Your task to perform on an android device: turn on data saver in the chrome app Image 0: 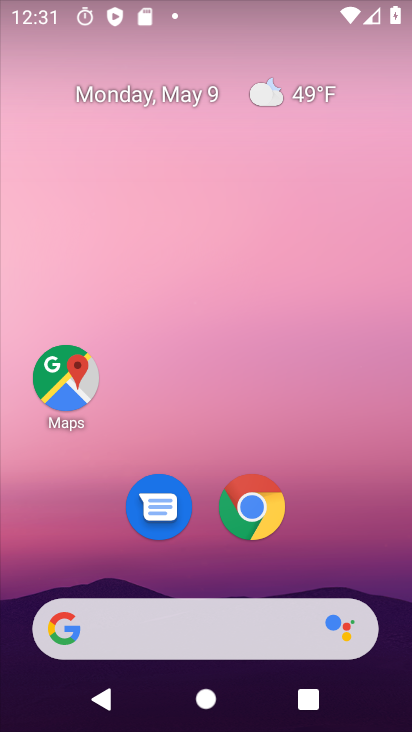
Step 0: click (251, 512)
Your task to perform on an android device: turn on data saver in the chrome app Image 1: 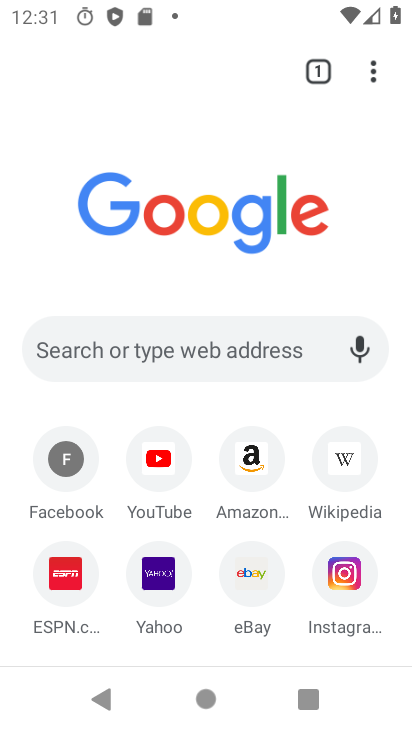
Step 1: click (374, 78)
Your task to perform on an android device: turn on data saver in the chrome app Image 2: 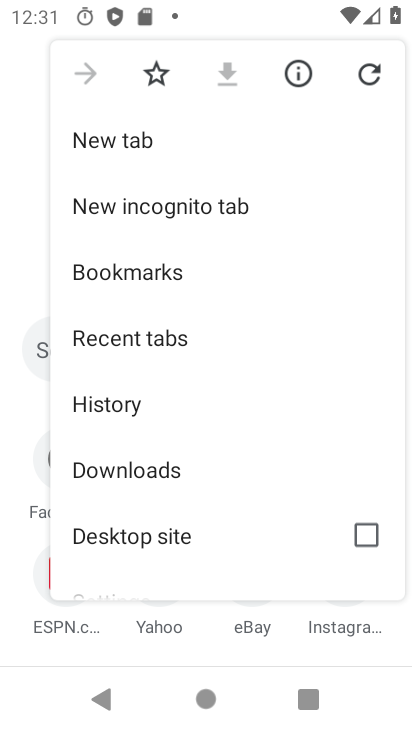
Step 2: drag from (135, 518) to (136, 275)
Your task to perform on an android device: turn on data saver in the chrome app Image 3: 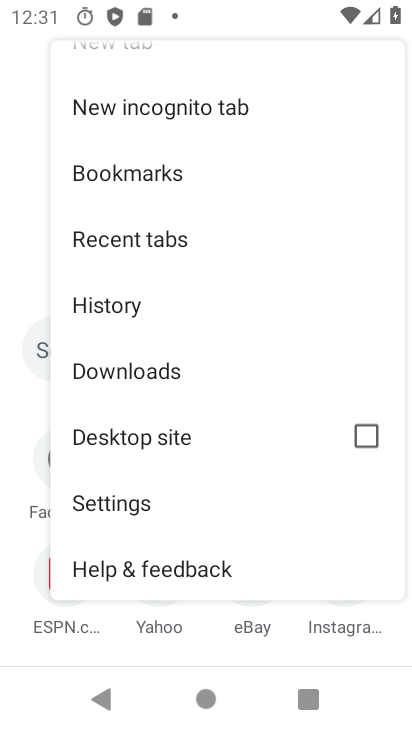
Step 3: click (124, 500)
Your task to perform on an android device: turn on data saver in the chrome app Image 4: 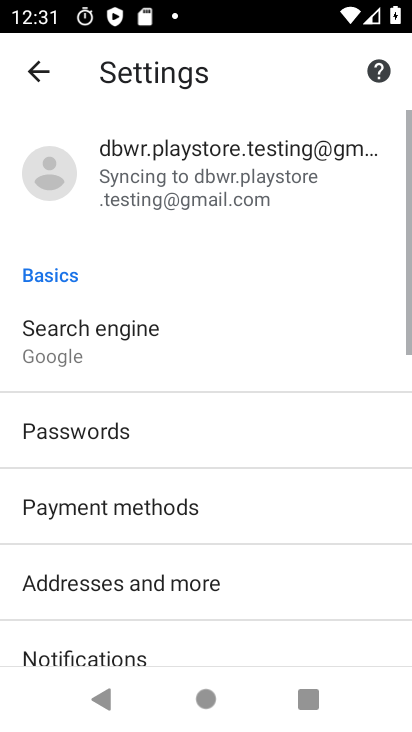
Step 4: drag from (169, 615) to (180, 297)
Your task to perform on an android device: turn on data saver in the chrome app Image 5: 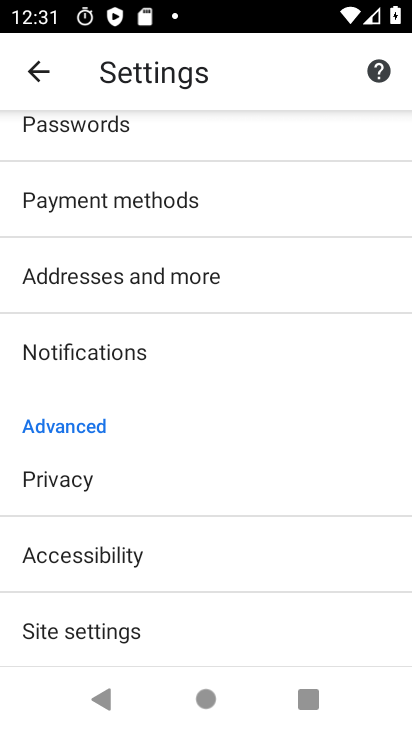
Step 5: drag from (179, 640) to (175, 360)
Your task to perform on an android device: turn on data saver in the chrome app Image 6: 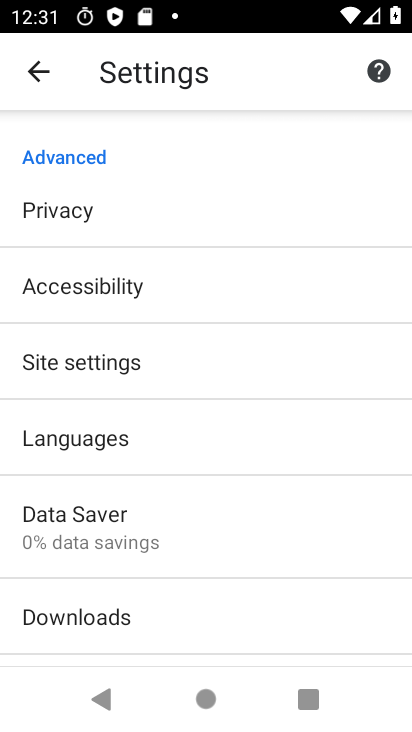
Step 6: click (78, 528)
Your task to perform on an android device: turn on data saver in the chrome app Image 7: 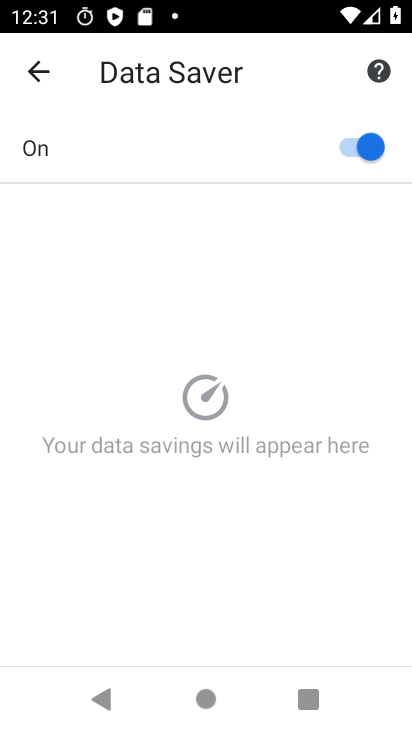
Step 7: task complete